Your task to perform on an android device: turn off javascript in the chrome app Image 0: 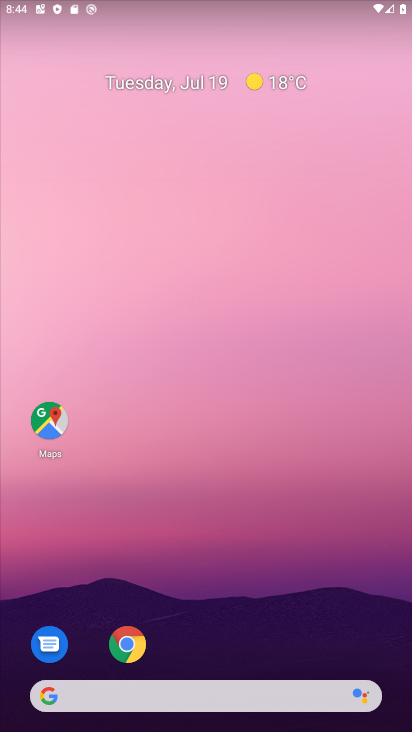
Step 0: click (125, 639)
Your task to perform on an android device: turn off javascript in the chrome app Image 1: 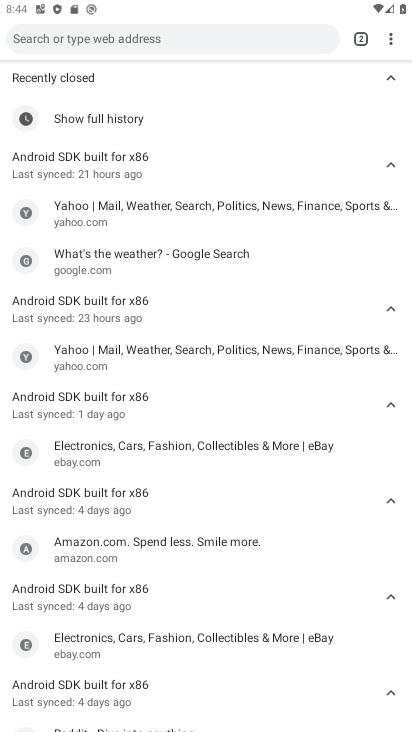
Step 1: click (392, 43)
Your task to perform on an android device: turn off javascript in the chrome app Image 2: 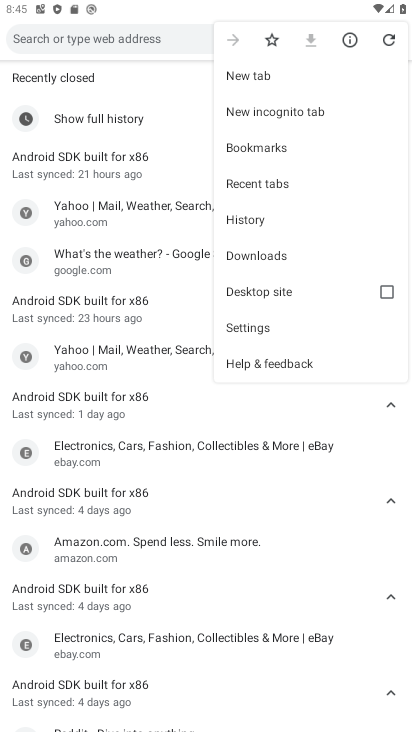
Step 2: click (248, 324)
Your task to perform on an android device: turn off javascript in the chrome app Image 3: 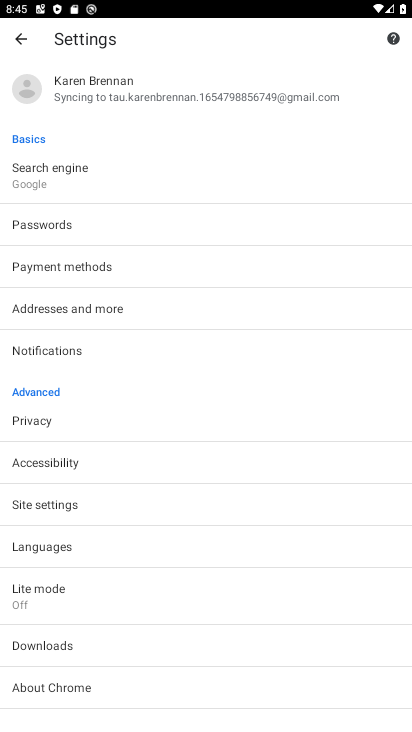
Step 3: click (45, 500)
Your task to perform on an android device: turn off javascript in the chrome app Image 4: 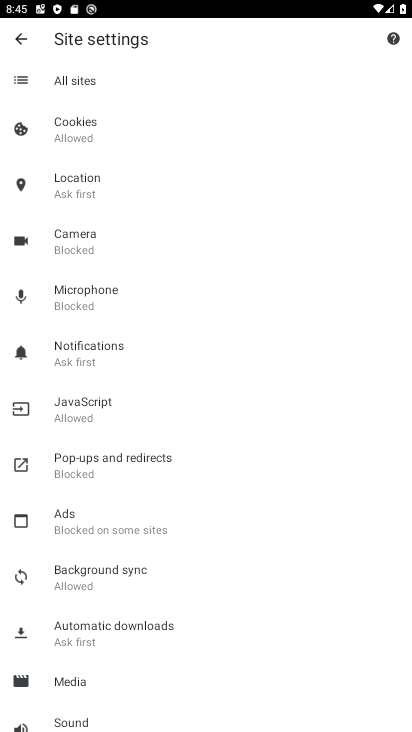
Step 4: click (87, 402)
Your task to perform on an android device: turn off javascript in the chrome app Image 5: 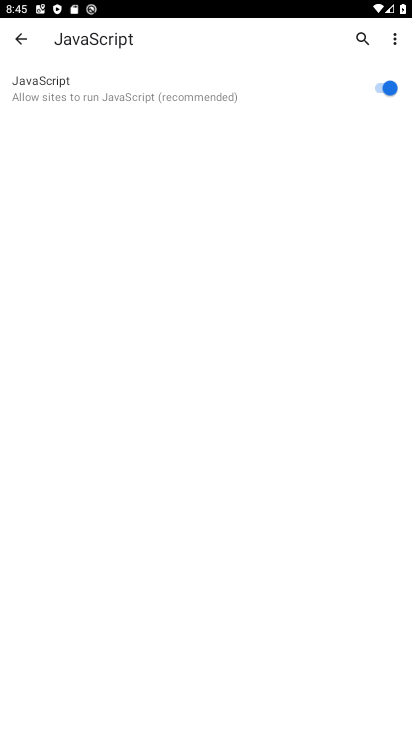
Step 5: click (382, 87)
Your task to perform on an android device: turn off javascript in the chrome app Image 6: 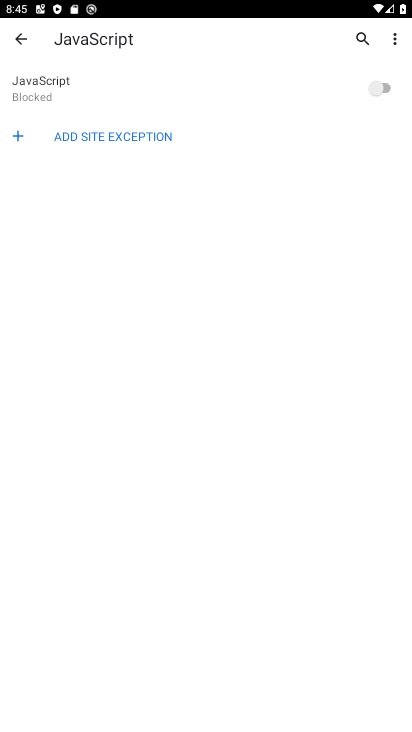
Step 6: task complete